Your task to perform on an android device: delete location history Image 0: 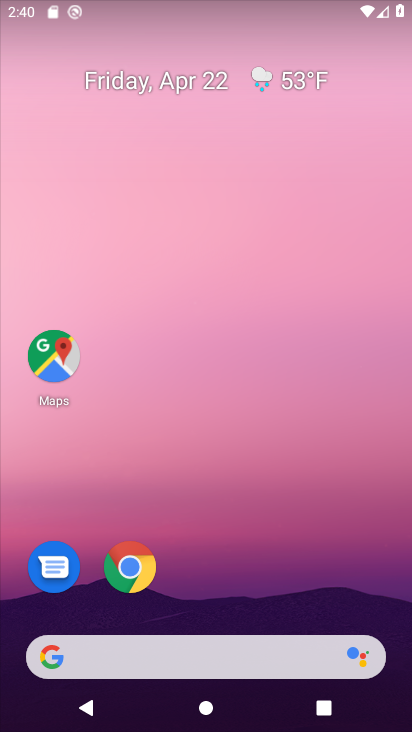
Step 0: click (44, 355)
Your task to perform on an android device: delete location history Image 1: 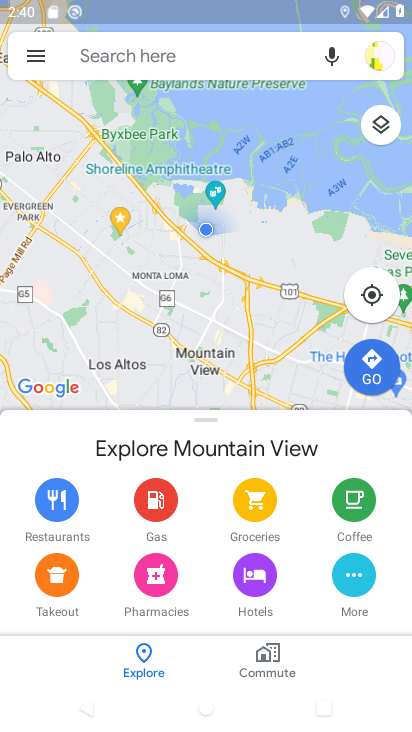
Step 1: click (40, 57)
Your task to perform on an android device: delete location history Image 2: 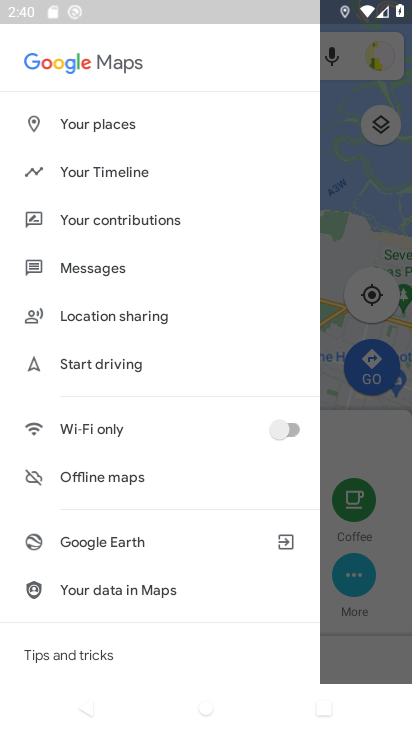
Step 2: click (99, 166)
Your task to perform on an android device: delete location history Image 3: 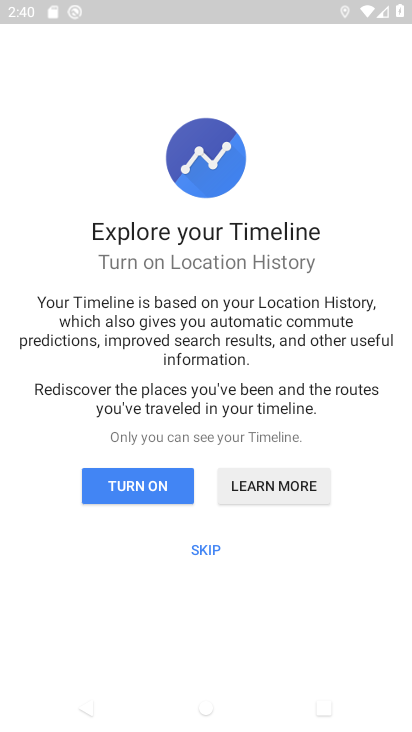
Step 3: click (206, 546)
Your task to perform on an android device: delete location history Image 4: 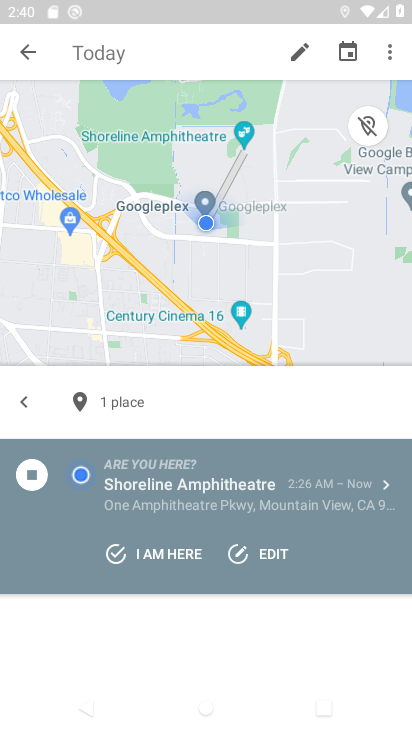
Step 4: click (390, 57)
Your task to perform on an android device: delete location history Image 5: 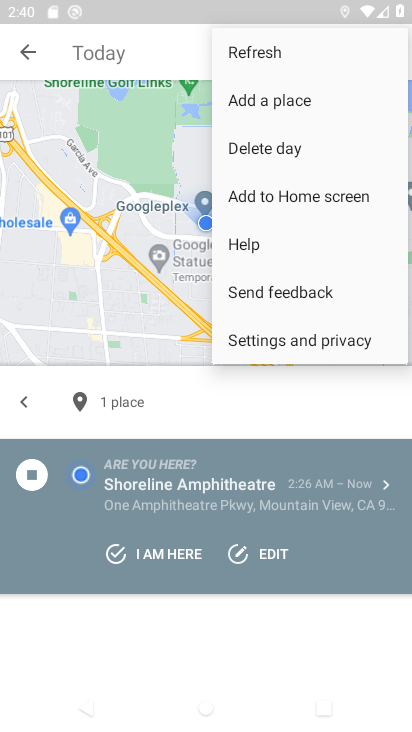
Step 5: click (337, 332)
Your task to perform on an android device: delete location history Image 6: 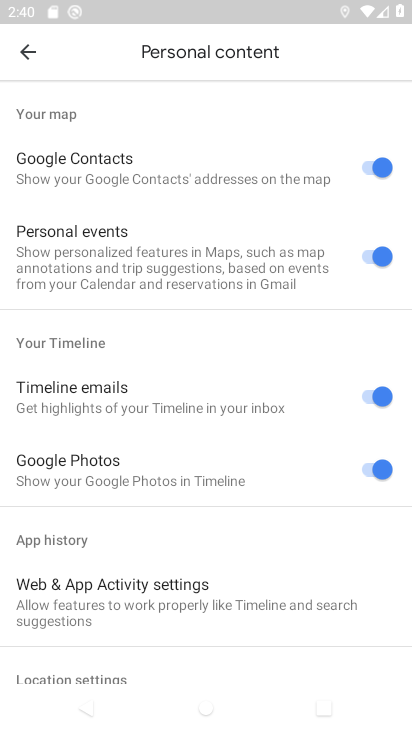
Step 6: drag from (270, 551) to (269, 154)
Your task to perform on an android device: delete location history Image 7: 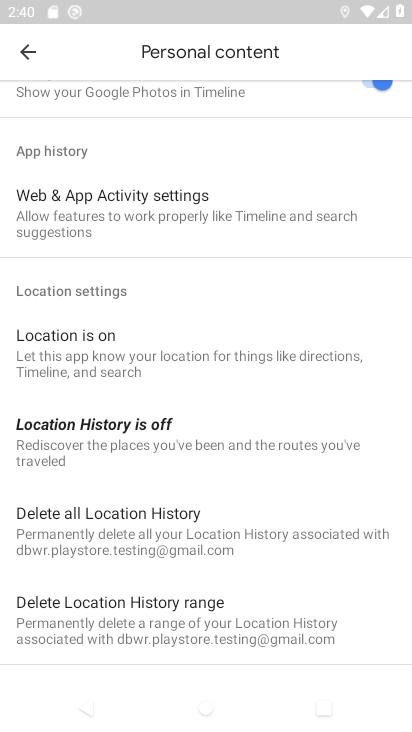
Step 7: click (215, 523)
Your task to perform on an android device: delete location history Image 8: 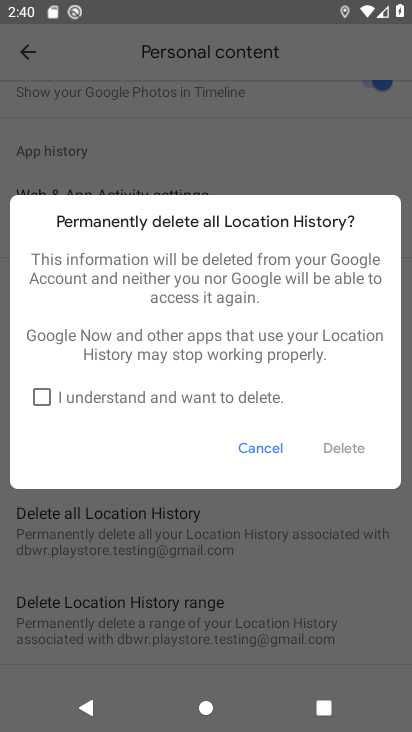
Step 8: click (42, 394)
Your task to perform on an android device: delete location history Image 9: 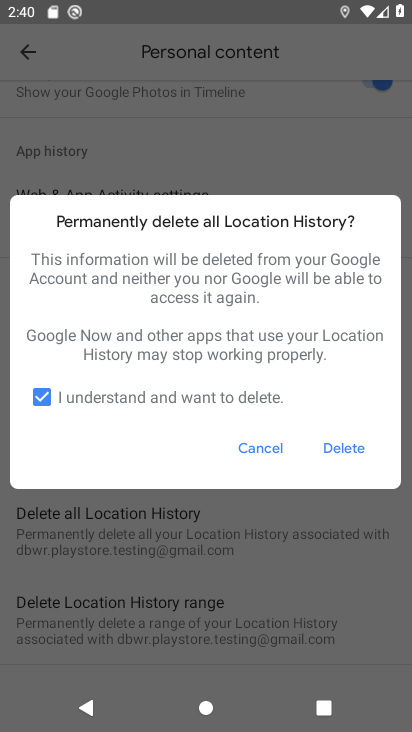
Step 9: click (342, 441)
Your task to perform on an android device: delete location history Image 10: 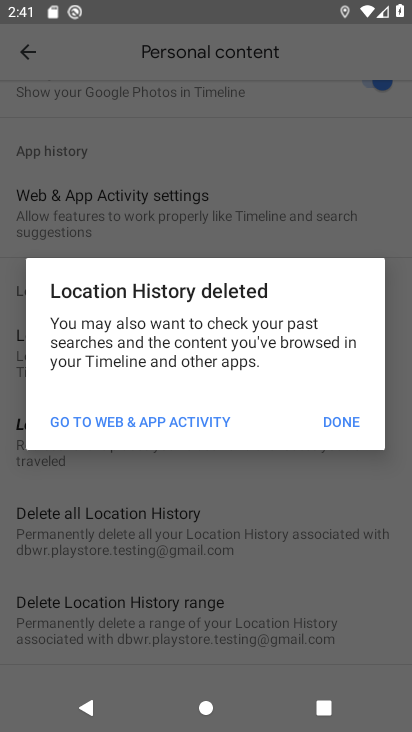
Step 10: click (349, 404)
Your task to perform on an android device: delete location history Image 11: 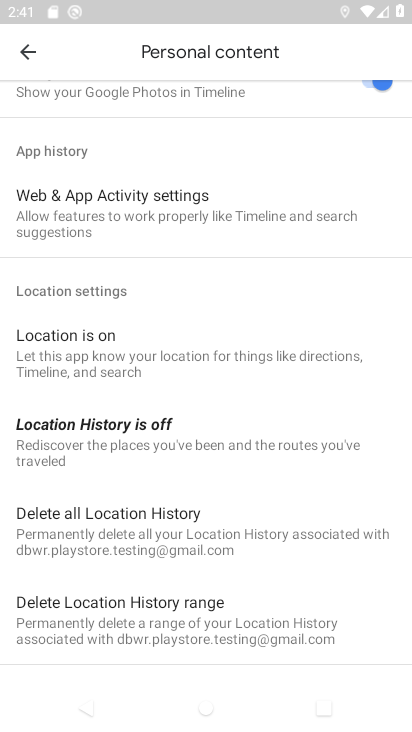
Step 11: task complete